Your task to perform on an android device: Go to Android settings Image 0: 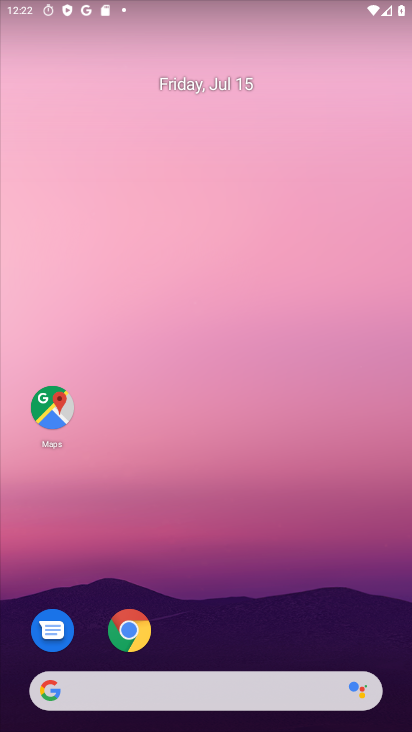
Step 0: drag from (189, 625) to (189, 335)
Your task to perform on an android device: Go to Android settings Image 1: 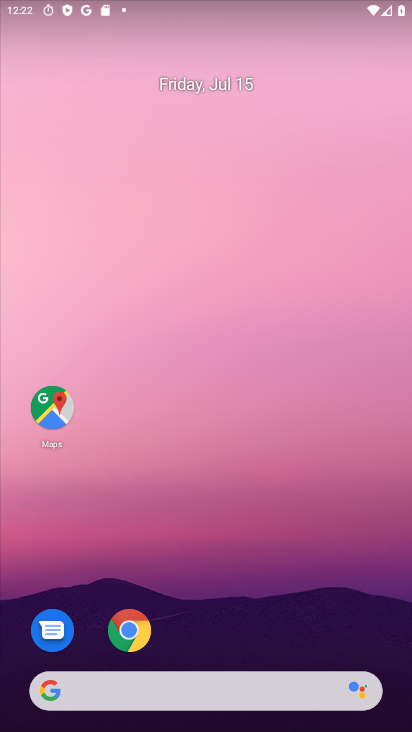
Step 1: drag from (199, 372) to (185, 269)
Your task to perform on an android device: Go to Android settings Image 2: 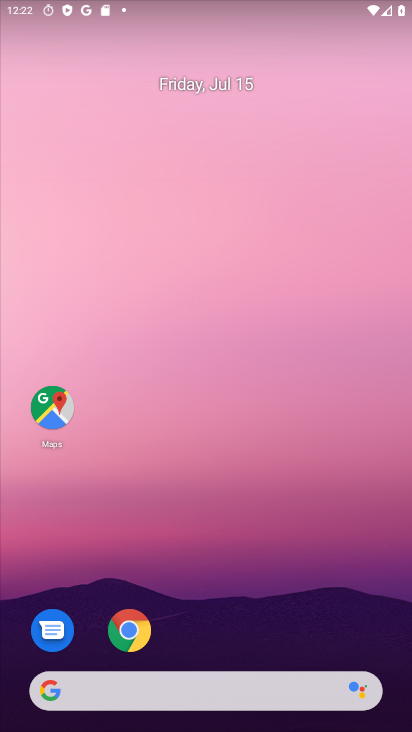
Step 2: drag from (202, 610) to (199, 330)
Your task to perform on an android device: Go to Android settings Image 3: 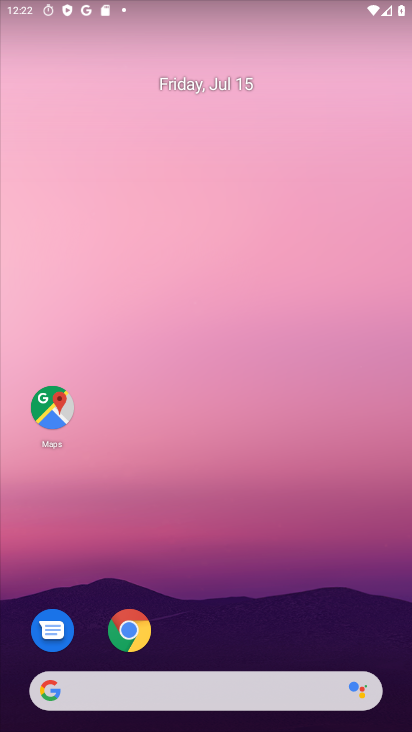
Step 3: drag from (189, 646) to (181, 122)
Your task to perform on an android device: Go to Android settings Image 4: 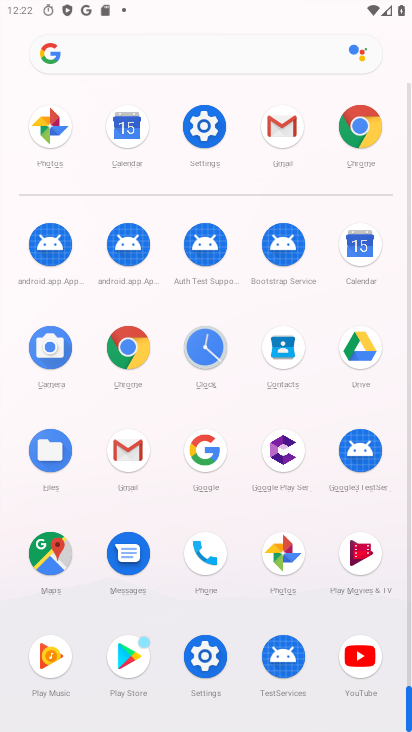
Step 4: click (201, 664)
Your task to perform on an android device: Go to Android settings Image 5: 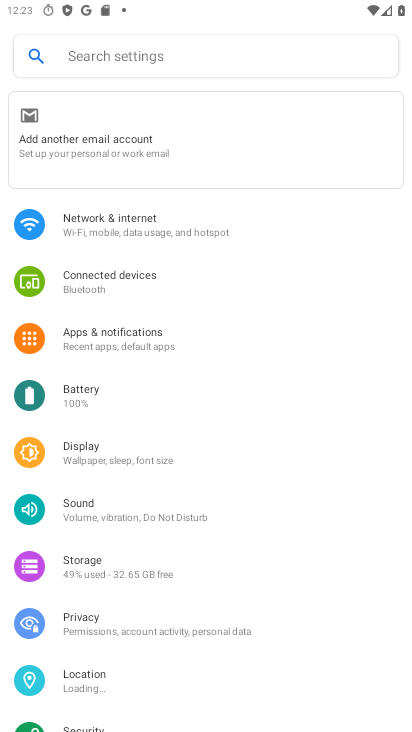
Step 5: drag from (157, 616) to (143, 37)
Your task to perform on an android device: Go to Android settings Image 6: 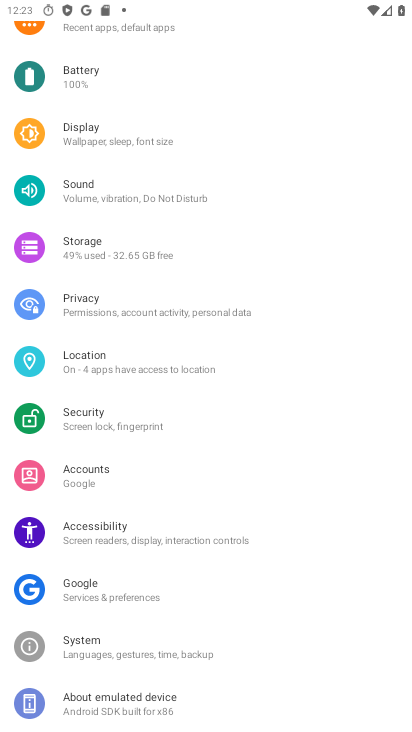
Step 6: drag from (156, 615) to (182, 354)
Your task to perform on an android device: Go to Android settings Image 7: 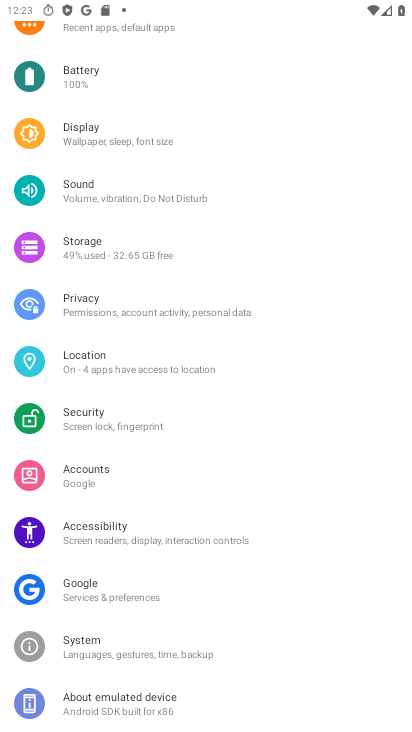
Step 7: click (96, 710)
Your task to perform on an android device: Go to Android settings Image 8: 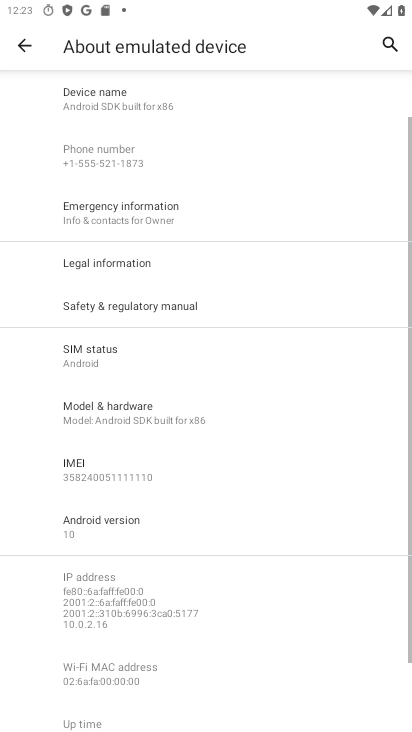
Step 8: click (79, 520)
Your task to perform on an android device: Go to Android settings Image 9: 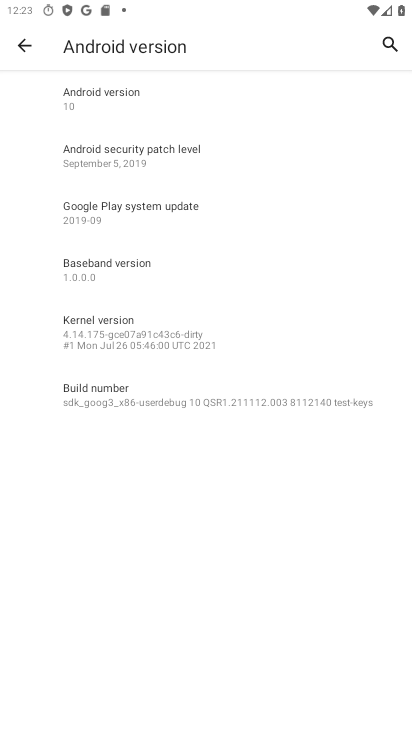
Step 9: task complete